Your task to perform on an android device: change the clock display to show seconds Image 0: 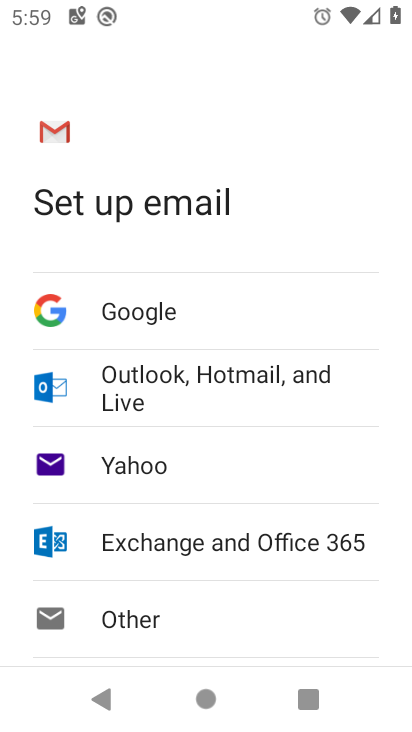
Step 0: press home button
Your task to perform on an android device: change the clock display to show seconds Image 1: 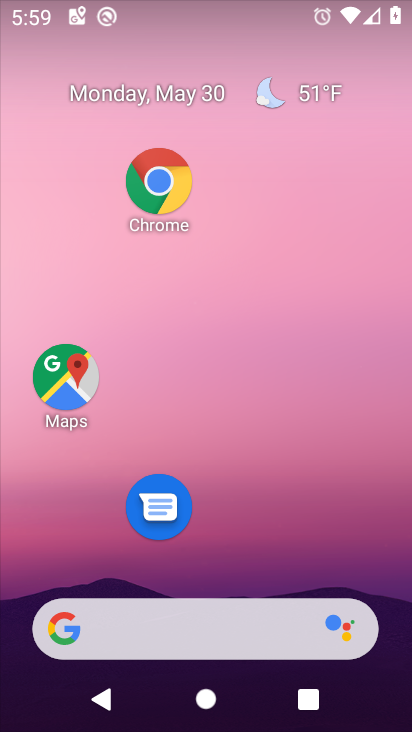
Step 1: drag from (278, 560) to (350, 19)
Your task to perform on an android device: change the clock display to show seconds Image 2: 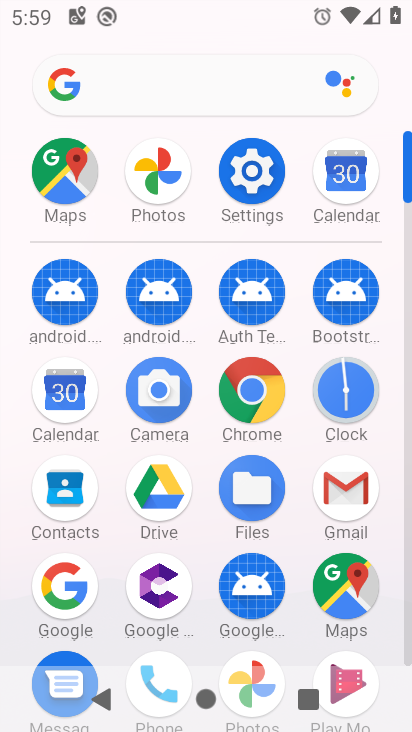
Step 2: click (334, 387)
Your task to perform on an android device: change the clock display to show seconds Image 3: 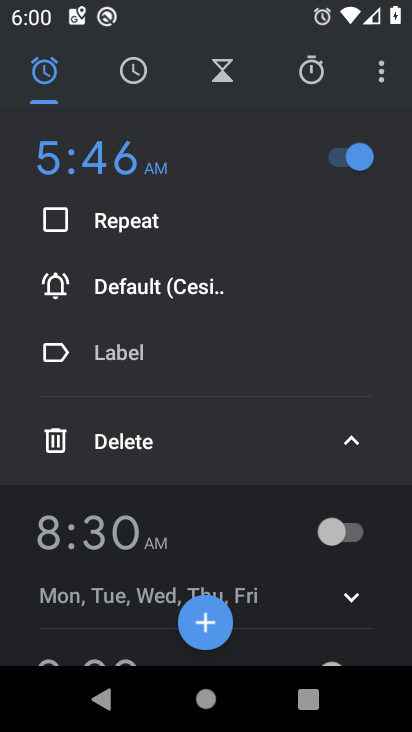
Step 3: click (380, 80)
Your task to perform on an android device: change the clock display to show seconds Image 4: 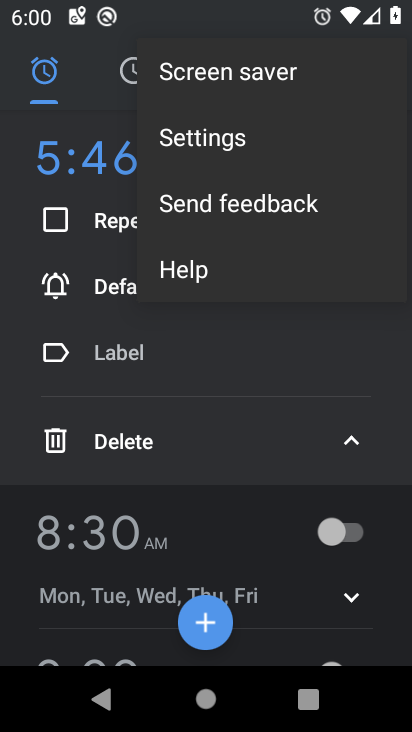
Step 4: click (225, 149)
Your task to perform on an android device: change the clock display to show seconds Image 5: 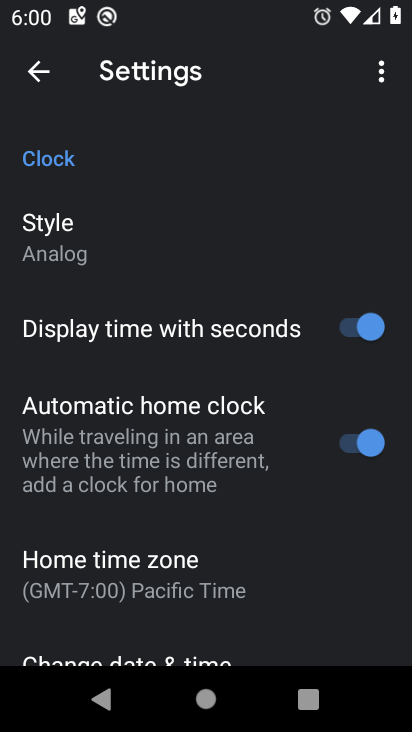
Step 5: task complete